Your task to perform on an android device: Open Google Chrome Image 0: 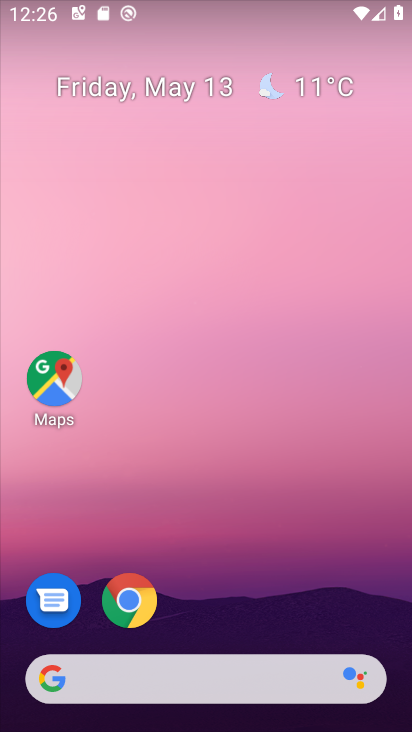
Step 0: click (133, 607)
Your task to perform on an android device: Open Google Chrome Image 1: 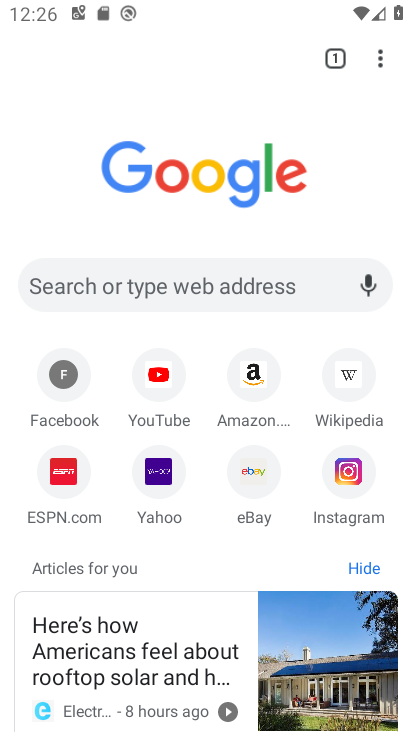
Step 1: task complete